Your task to perform on an android device: manage bookmarks in the chrome app Image 0: 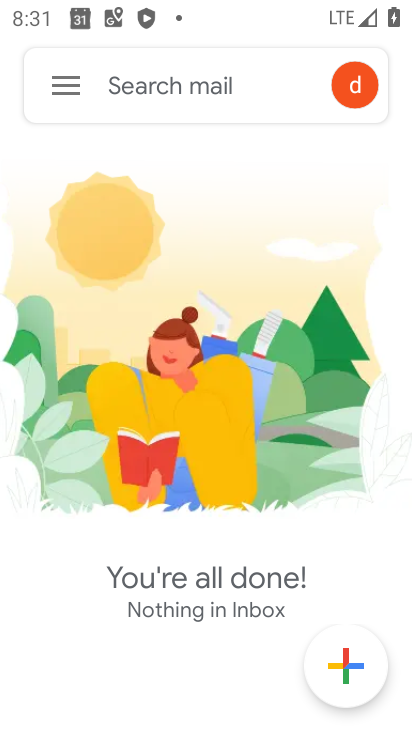
Step 0: press back button
Your task to perform on an android device: manage bookmarks in the chrome app Image 1: 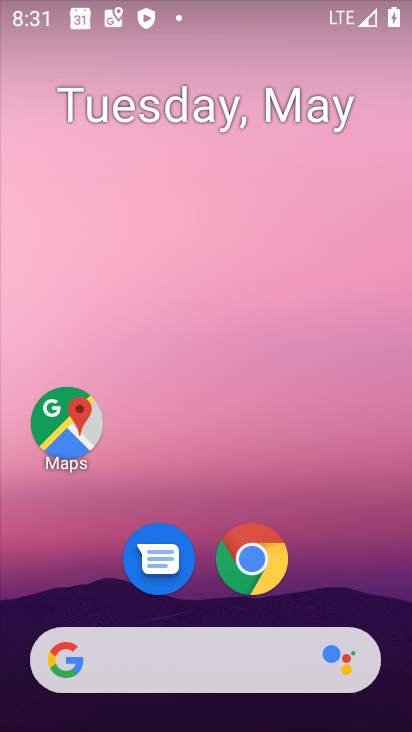
Step 1: click (253, 560)
Your task to perform on an android device: manage bookmarks in the chrome app Image 2: 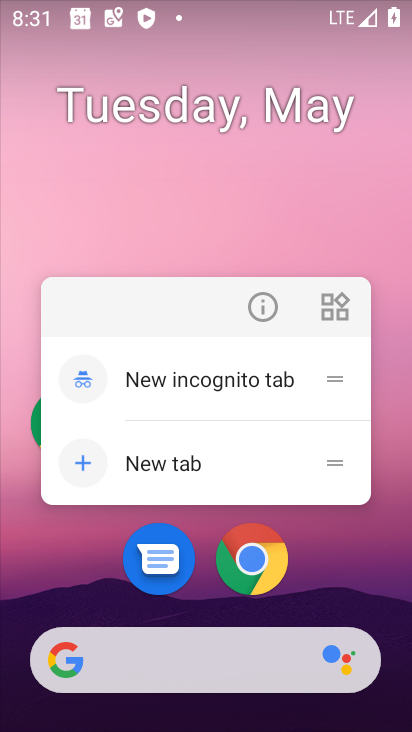
Step 2: click (261, 553)
Your task to perform on an android device: manage bookmarks in the chrome app Image 3: 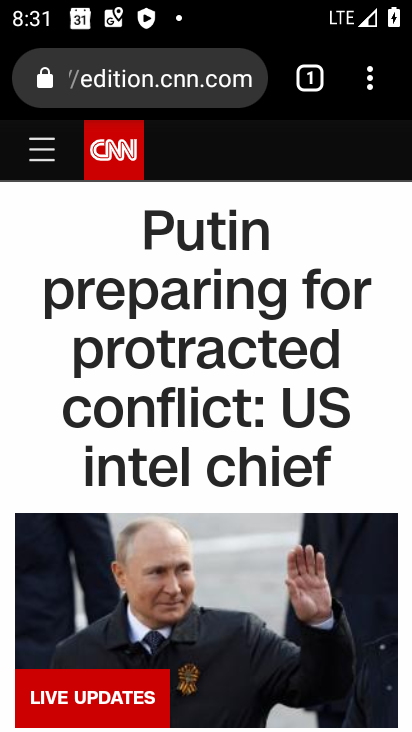
Step 3: drag from (372, 74) to (175, 300)
Your task to perform on an android device: manage bookmarks in the chrome app Image 4: 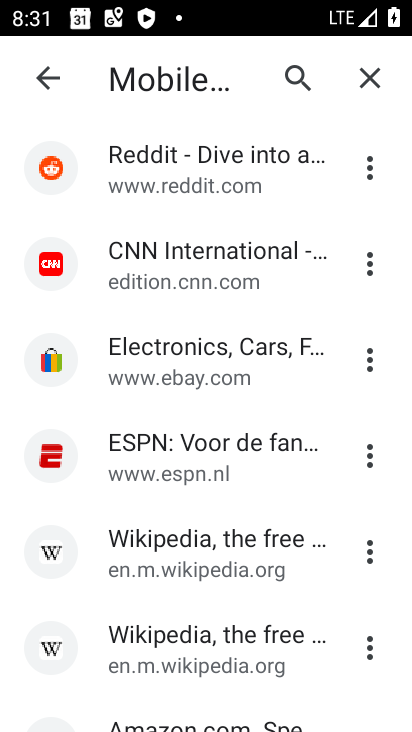
Step 4: click (368, 346)
Your task to perform on an android device: manage bookmarks in the chrome app Image 5: 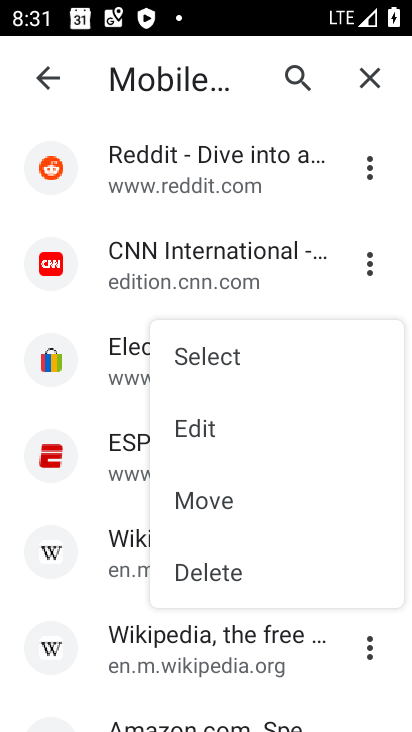
Step 5: click (206, 559)
Your task to perform on an android device: manage bookmarks in the chrome app Image 6: 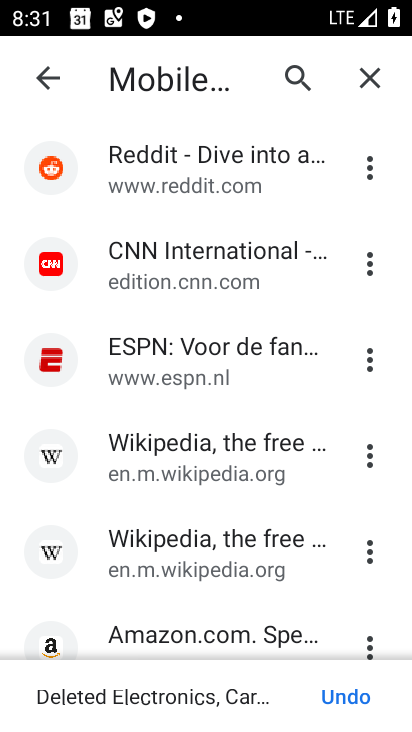
Step 6: task complete